Your task to perform on an android device: Search for a runner rug on Crate & Barrel Image 0: 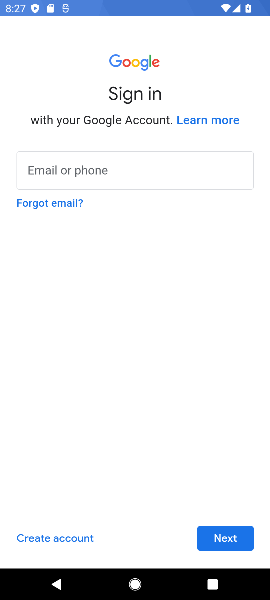
Step 0: press home button
Your task to perform on an android device: Search for a runner rug on Crate & Barrel Image 1: 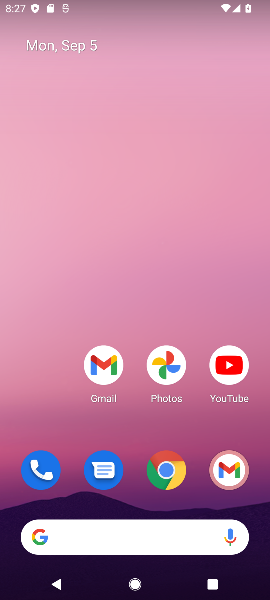
Step 1: click (159, 531)
Your task to perform on an android device: Search for a runner rug on Crate & Barrel Image 2: 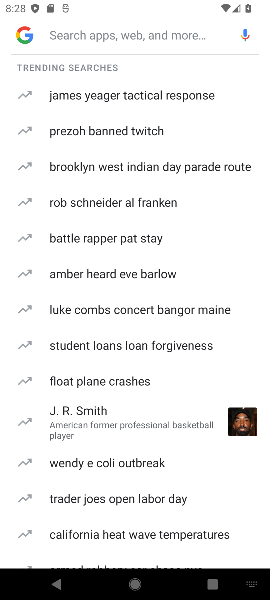
Step 2: type "crate & barrel"
Your task to perform on an android device: Search for a runner rug on Crate & Barrel Image 3: 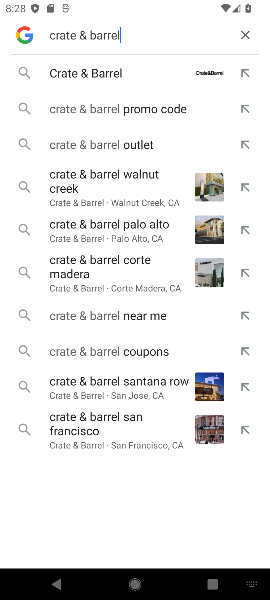
Step 3: click (99, 66)
Your task to perform on an android device: Search for a runner rug on Crate & Barrel Image 4: 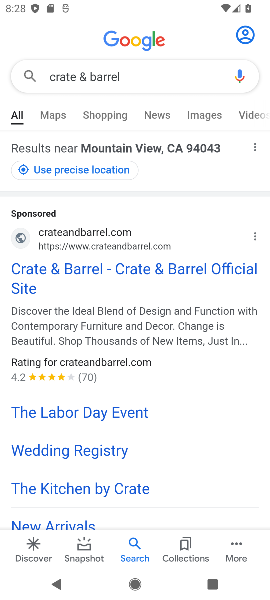
Step 4: click (66, 261)
Your task to perform on an android device: Search for a runner rug on Crate & Barrel Image 5: 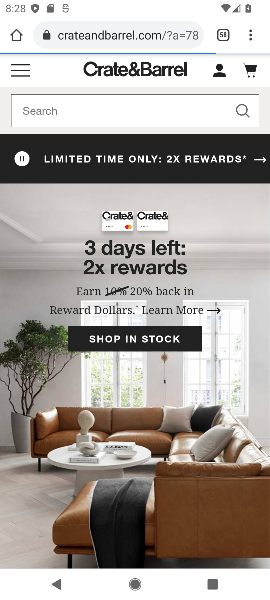
Step 5: click (45, 107)
Your task to perform on an android device: Search for a runner rug on Crate & Barrel Image 6: 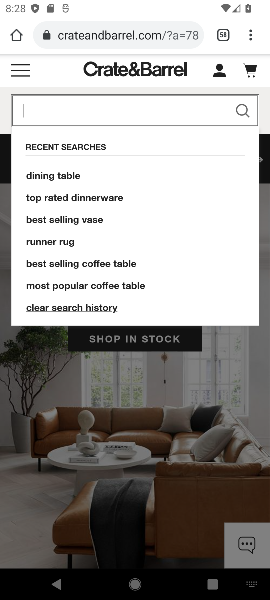
Step 6: type "runner rug"
Your task to perform on an android device: Search for a runner rug on Crate & Barrel Image 7: 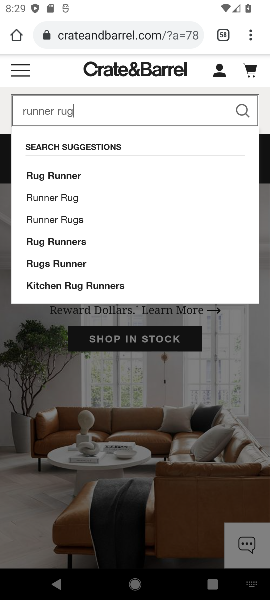
Step 7: click (239, 104)
Your task to perform on an android device: Search for a runner rug on Crate & Barrel Image 8: 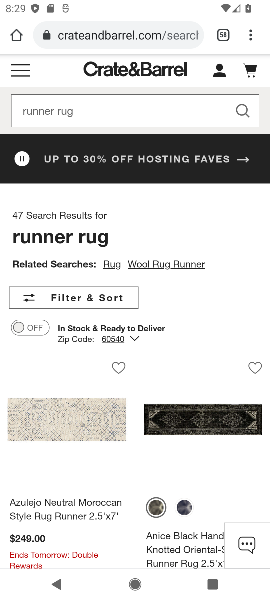
Step 8: task complete